Your task to perform on an android device: move a message to another label in the gmail app Image 0: 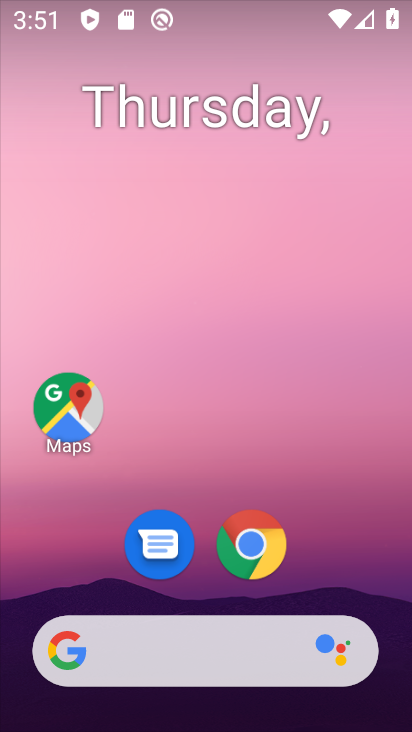
Step 0: drag from (343, 526) to (212, 17)
Your task to perform on an android device: move a message to another label in the gmail app Image 1: 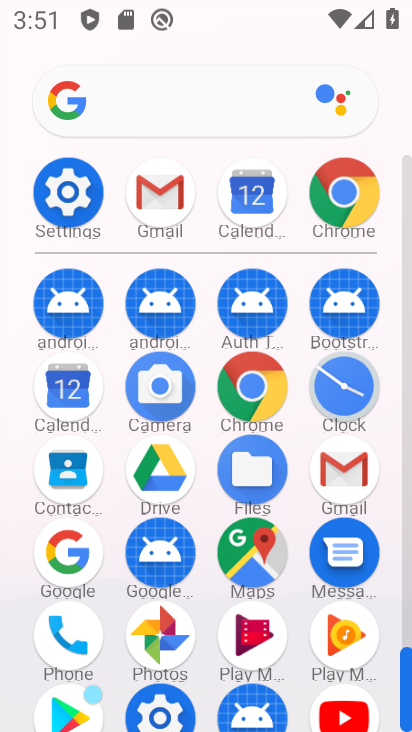
Step 1: click (156, 213)
Your task to perform on an android device: move a message to another label in the gmail app Image 2: 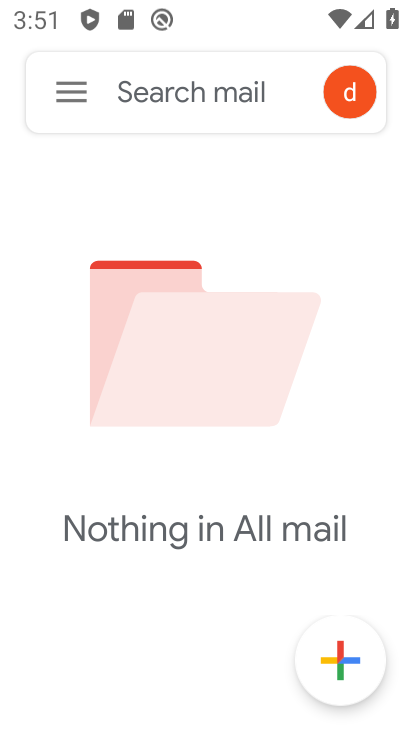
Step 2: click (57, 105)
Your task to perform on an android device: move a message to another label in the gmail app Image 3: 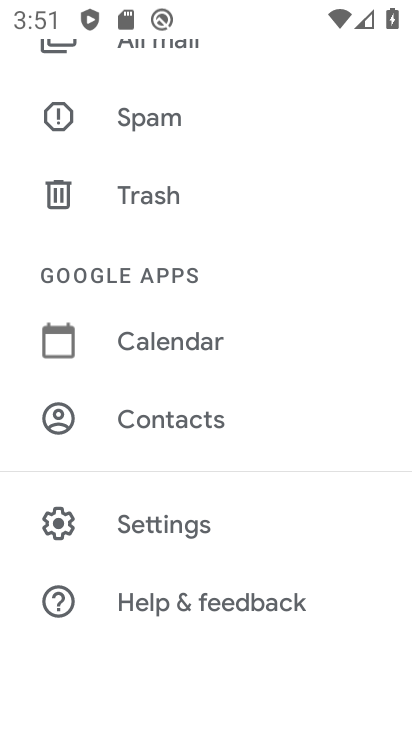
Step 3: task complete